Your task to perform on an android device: open a new tab in the chrome app Image 0: 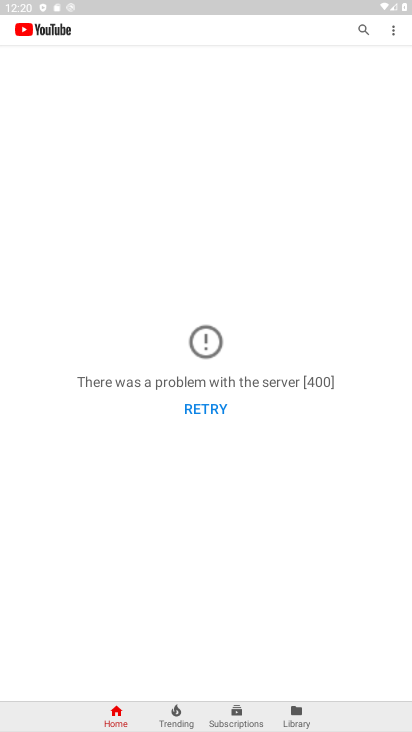
Step 0: press home button
Your task to perform on an android device: open a new tab in the chrome app Image 1: 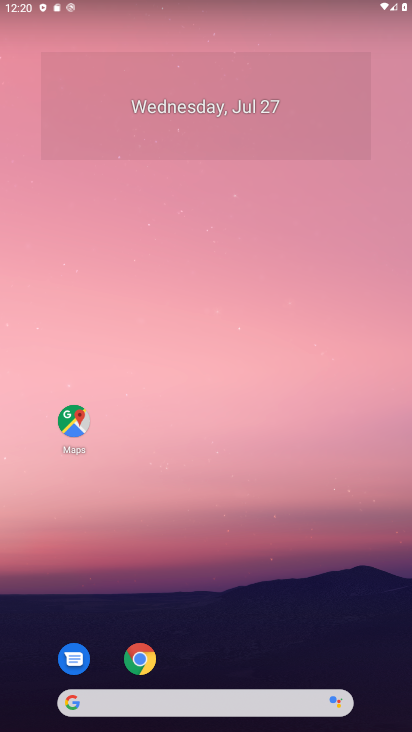
Step 1: click (154, 650)
Your task to perform on an android device: open a new tab in the chrome app Image 2: 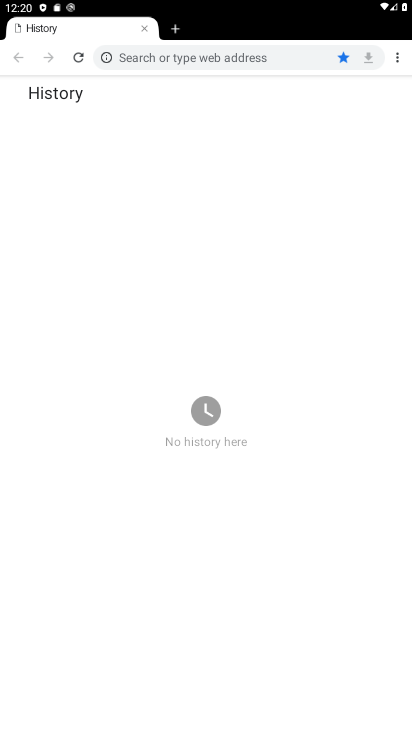
Step 2: click (169, 28)
Your task to perform on an android device: open a new tab in the chrome app Image 3: 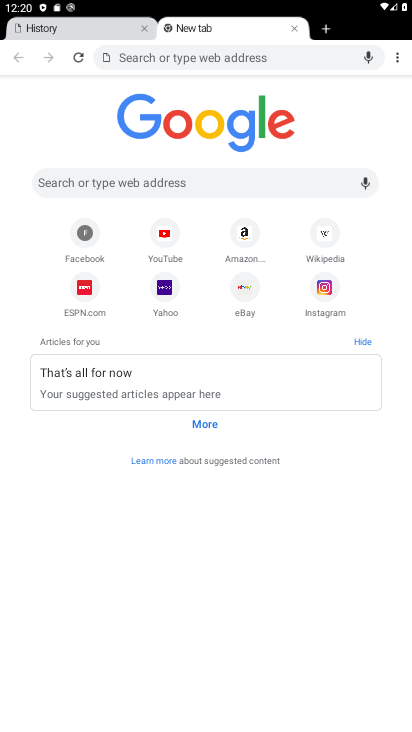
Step 3: task complete